Your task to perform on an android device: move an email to a new category in the gmail app Image 0: 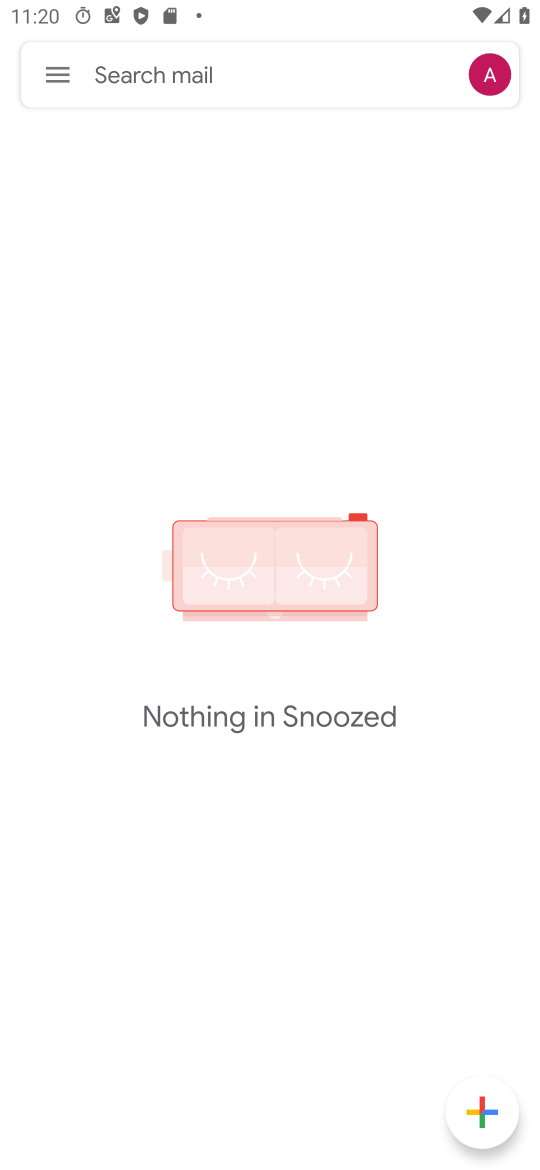
Step 0: press back button
Your task to perform on an android device: move an email to a new category in the gmail app Image 1: 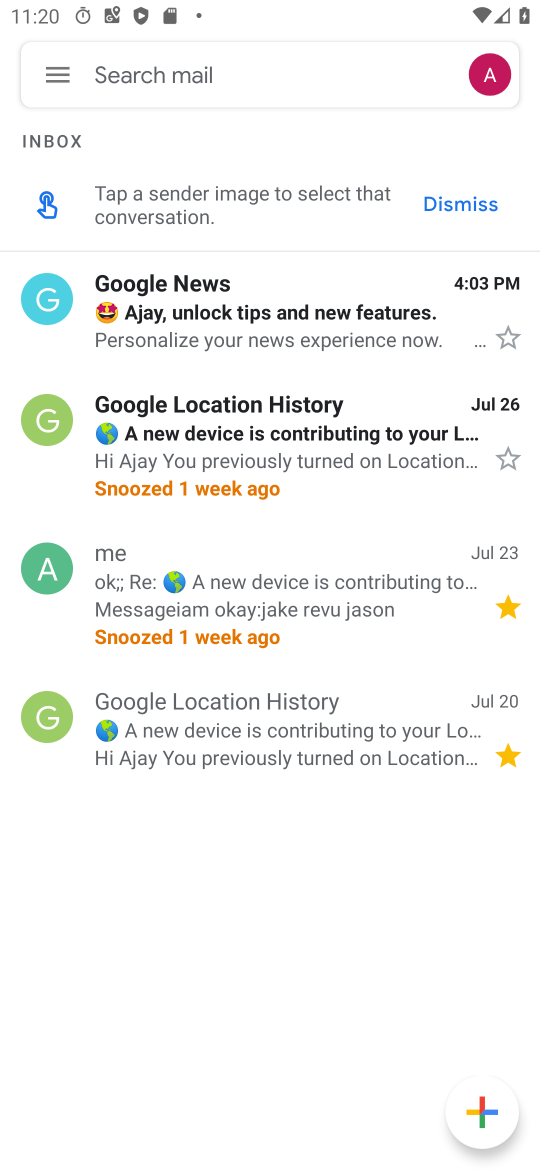
Step 1: press home button
Your task to perform on an android device: move an email to a new category in the gmail app Image 2: 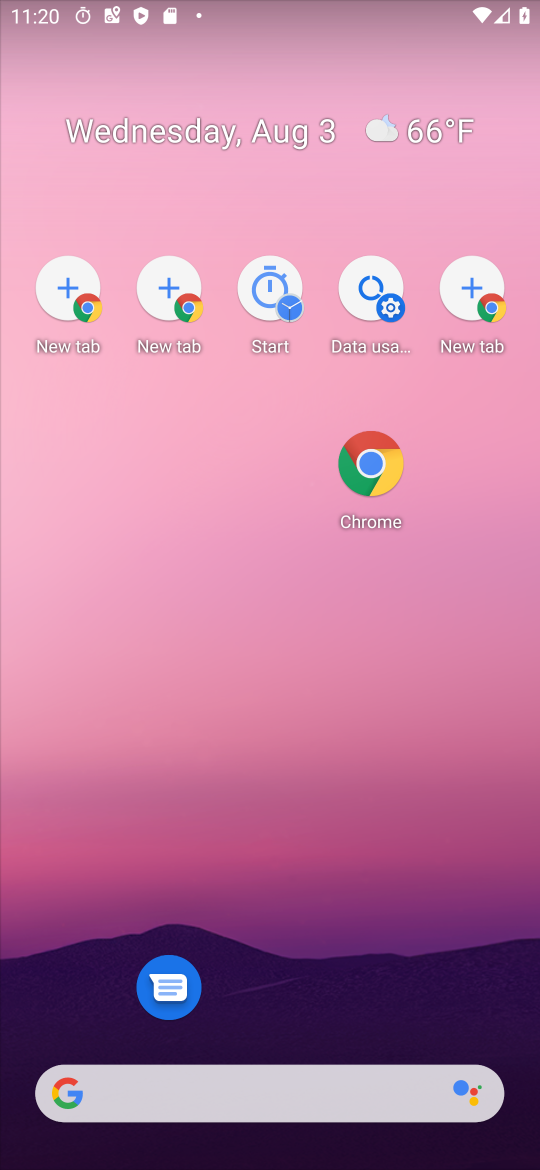
Step 2: drag from (312, 704) to (249, 21)
Your task to perform on an android device: move an email to a new category in the gmail app Image 3: 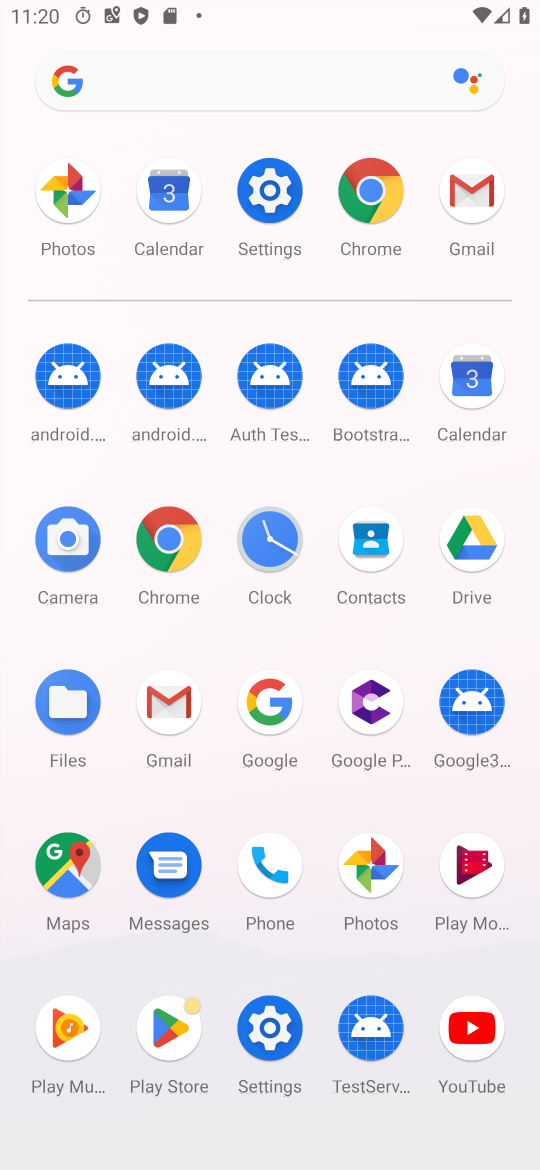
Step 3: click (182, 706)
Your task to perform on an android device: move an email to a new category in the gmail app Image 4: 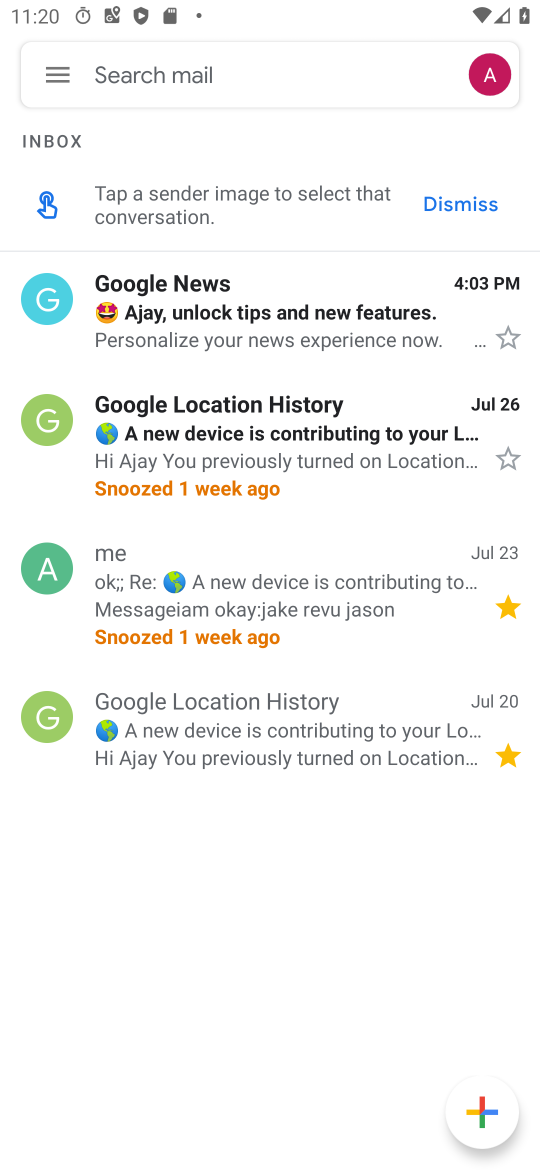
Step 4: click (509, 335)
Your task to perform on an android device: move an email to a new category in the gmail app Image 5: 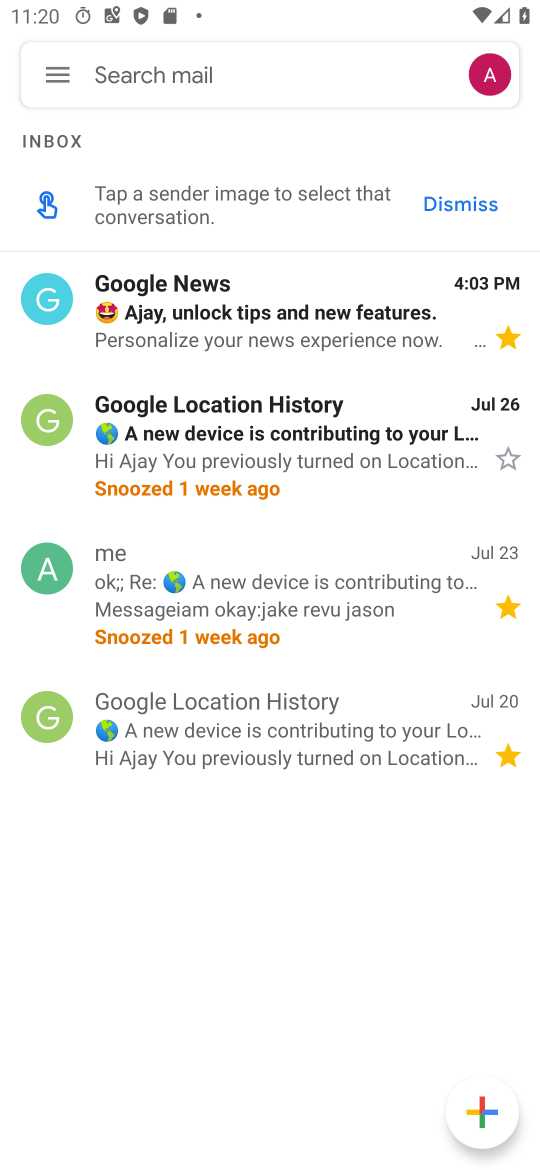
Step 5: click (350, 325)
Your task to perform on an android device: move an email to a new category in the gmail app Image 6: 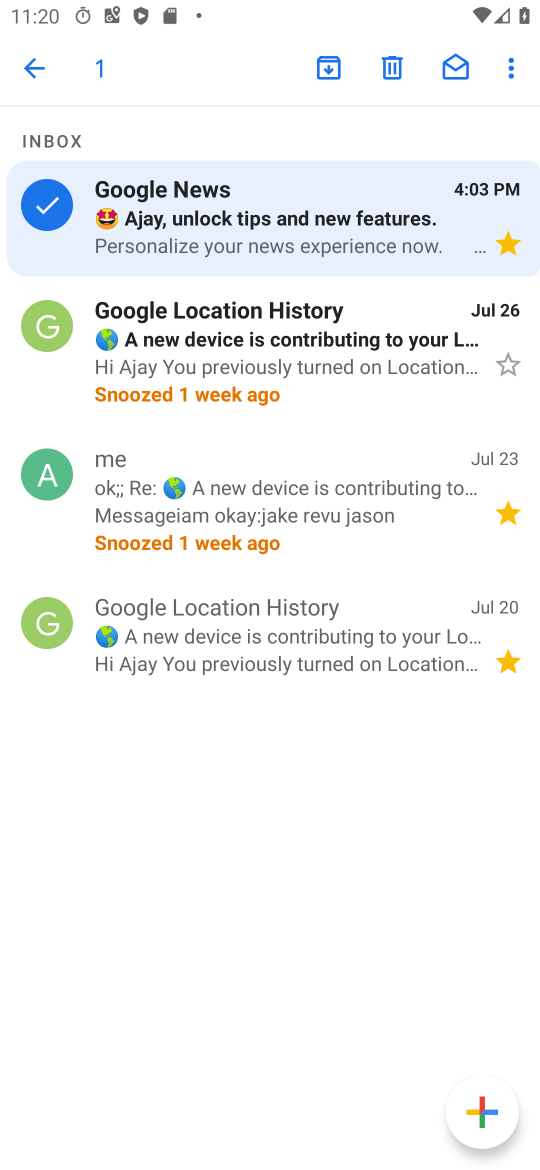
Step 6: click (497, 64)
Your task to perform on an android device: move an email to a new category in the gmail app Image 7: 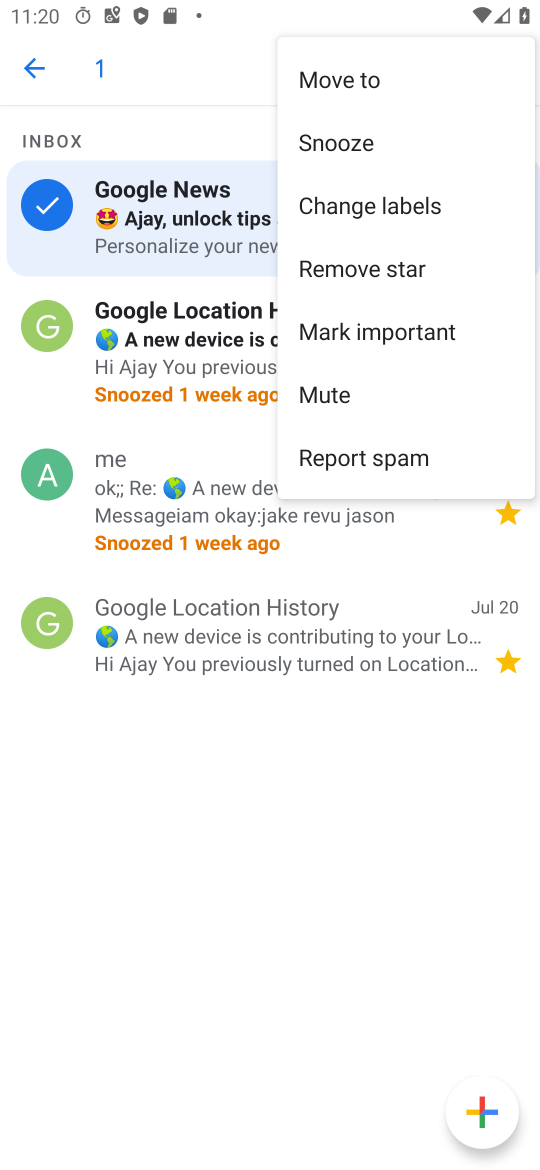
Step 7: click (333, 77)
Your task to perform on an android device: move an email to a new category in the gmail app Image 8: 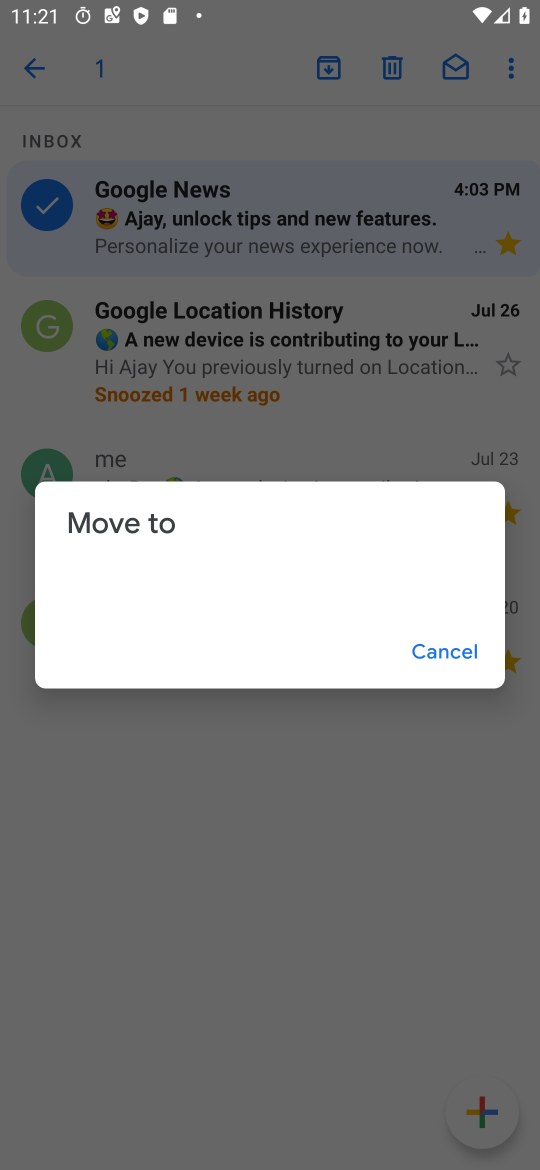
Step 8: click (158, 523)
Your task to perform on an android device: move an email to a new category in the gmail app Image 9: 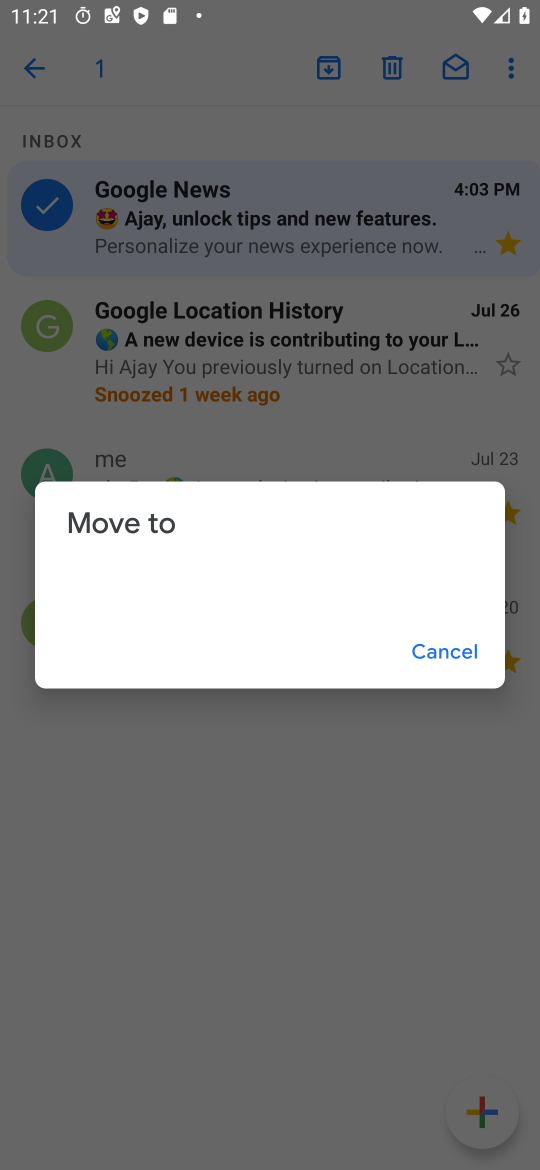
Step 9: click (163, 534)
Your task to perform on an android device: move an email to a new category in the gmail app Image 10: 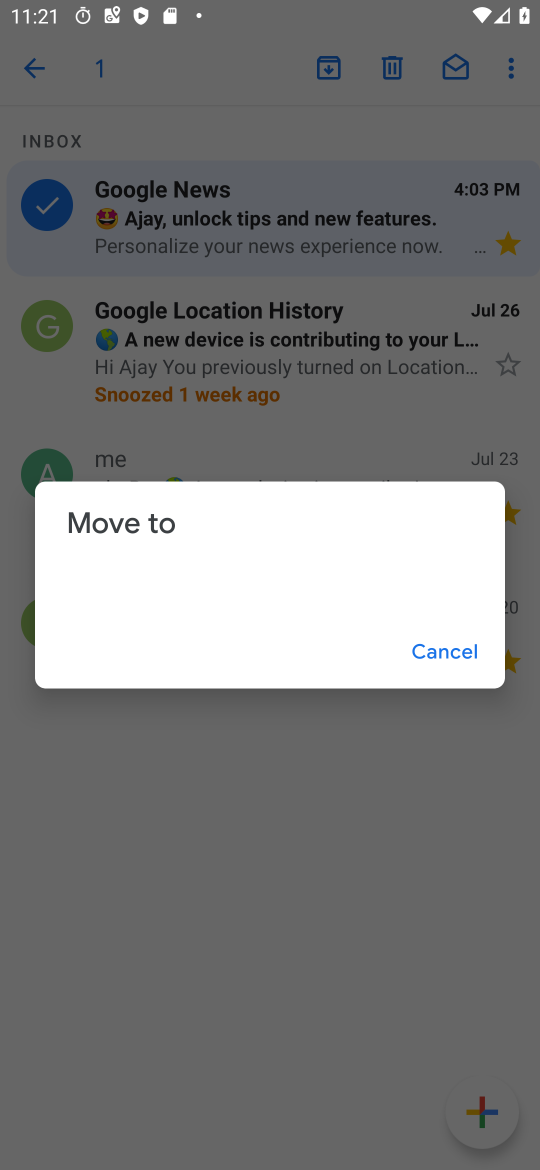
Step 10: click (168, 533)
Your task to perform on an android device: move an email to a new category in the gmail app Image 11: 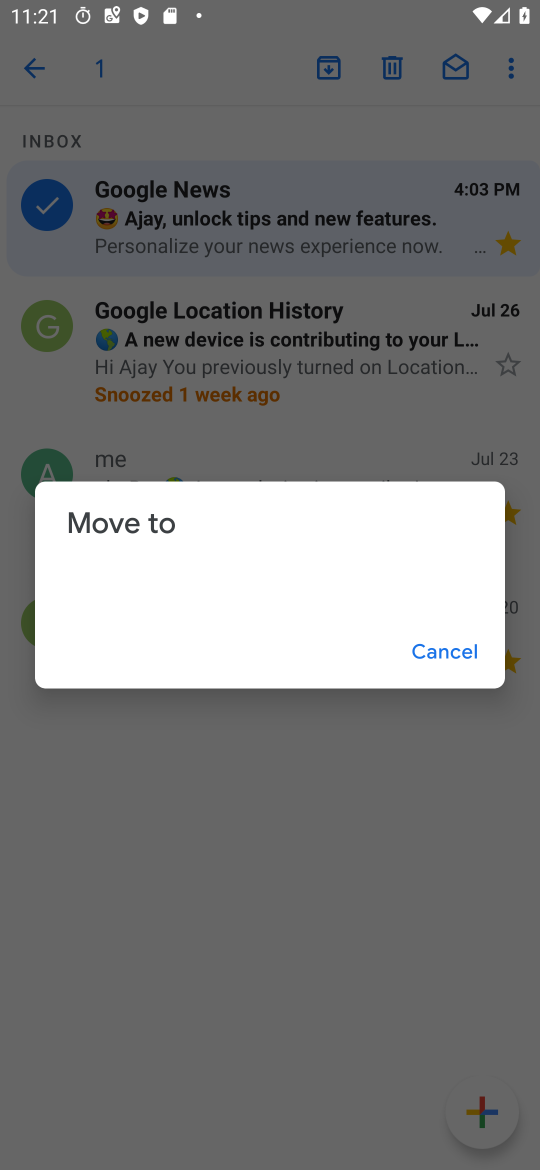
Step 11: click (175, 524)
Your task to perform on an android device: move an email to a new category in the gmail app Image 12: 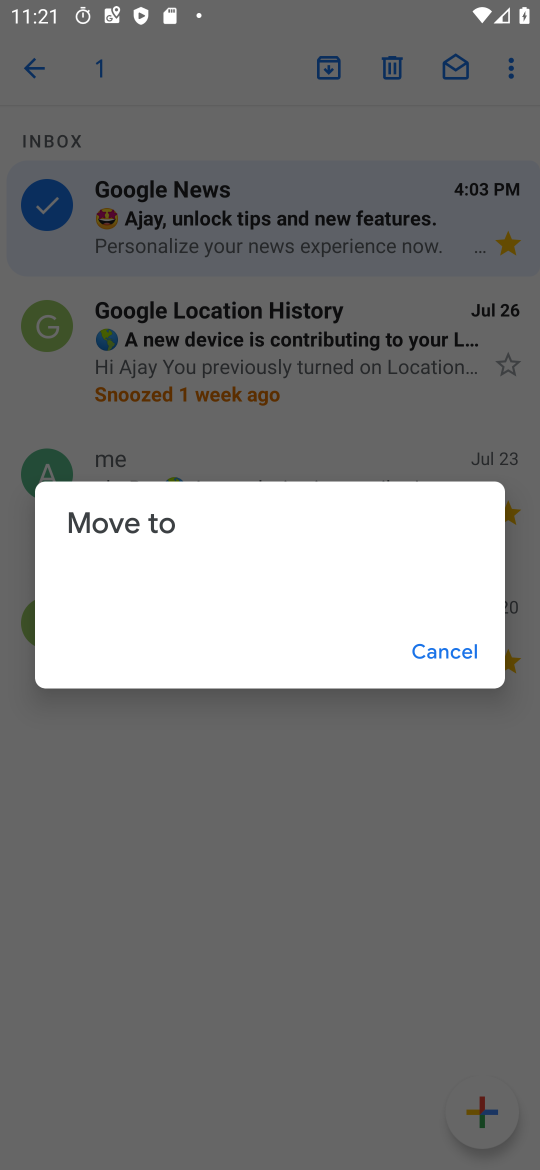
Step 12: click (176, 526)
Your task to perform on an android device: move an email to a new category in the gmail app Image 13: 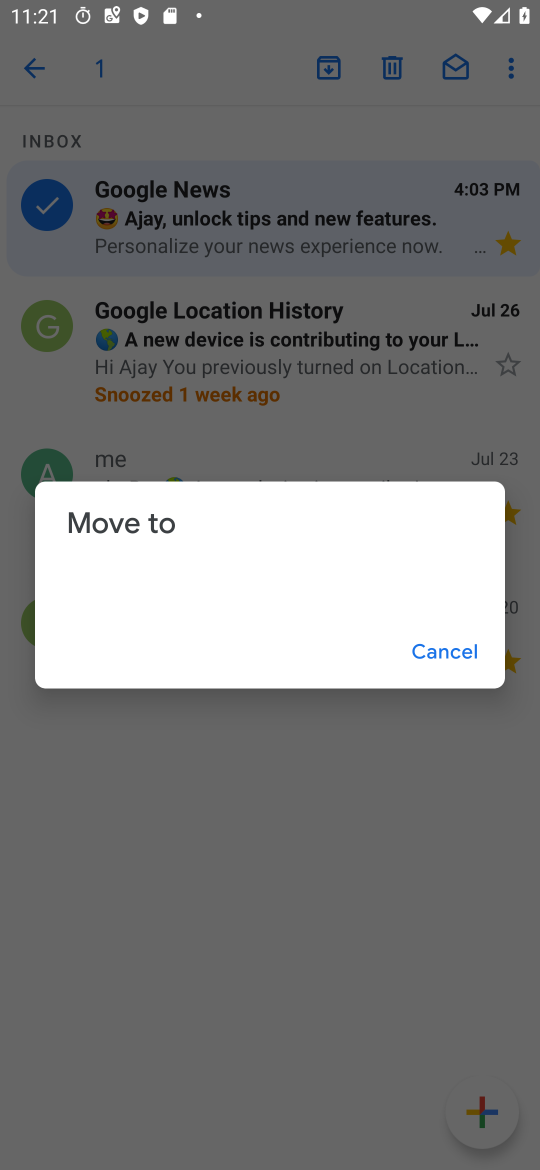
Step 13: click (176, 527)
Your task to perform on an android device: move an email to a new category in the gmail app Image 14: 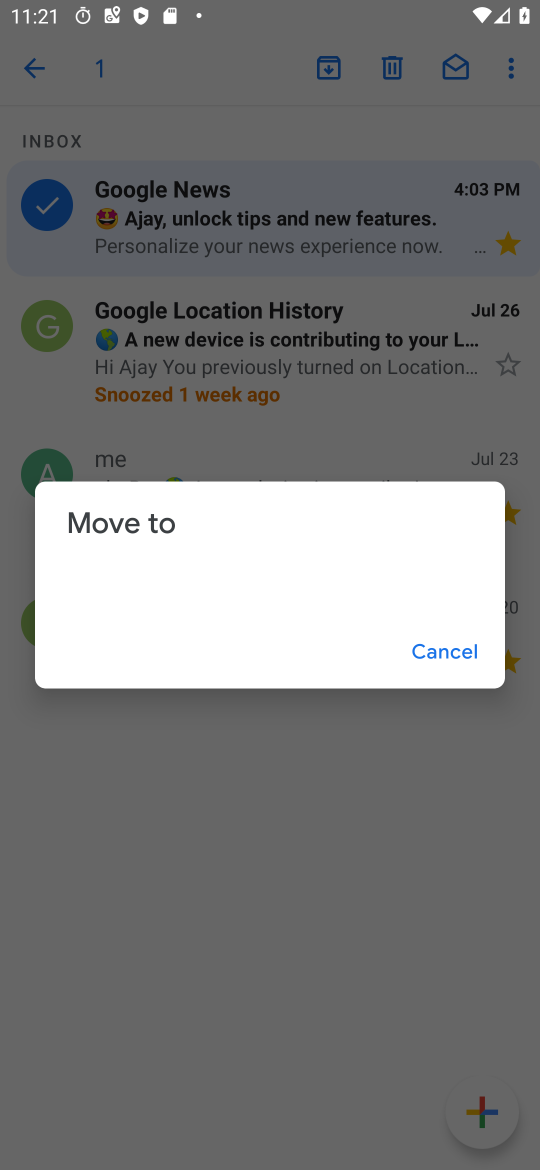
Step 14: click (176, 529)
Your task to perform on an android device: move an email to a new category in the gmail app Image 15: 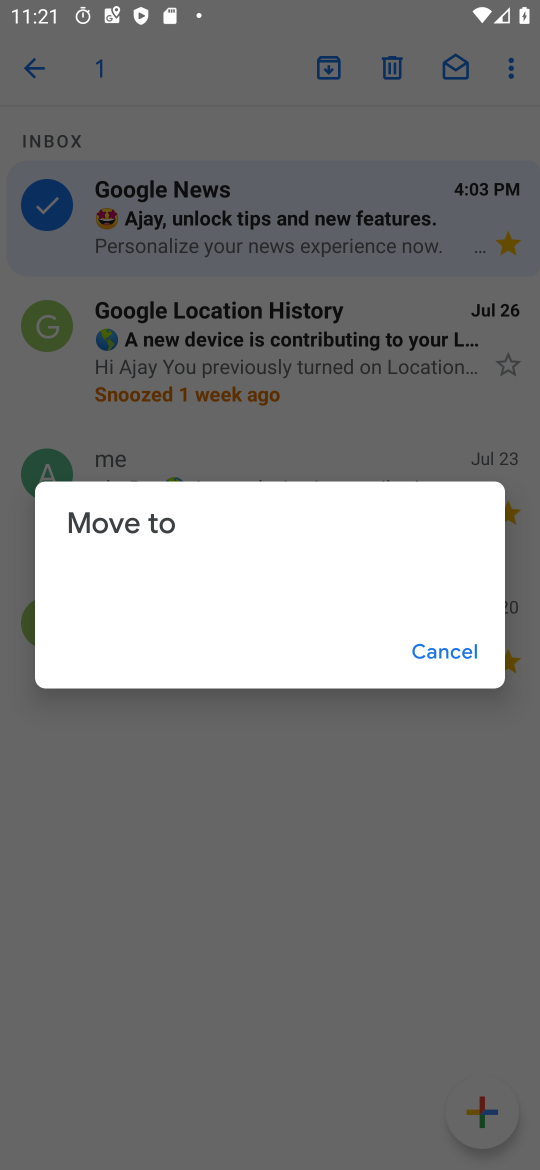
Step 15: click (178, 529)
Your task to perform on an android device: move an email to a new category in the gmail app Image 16: 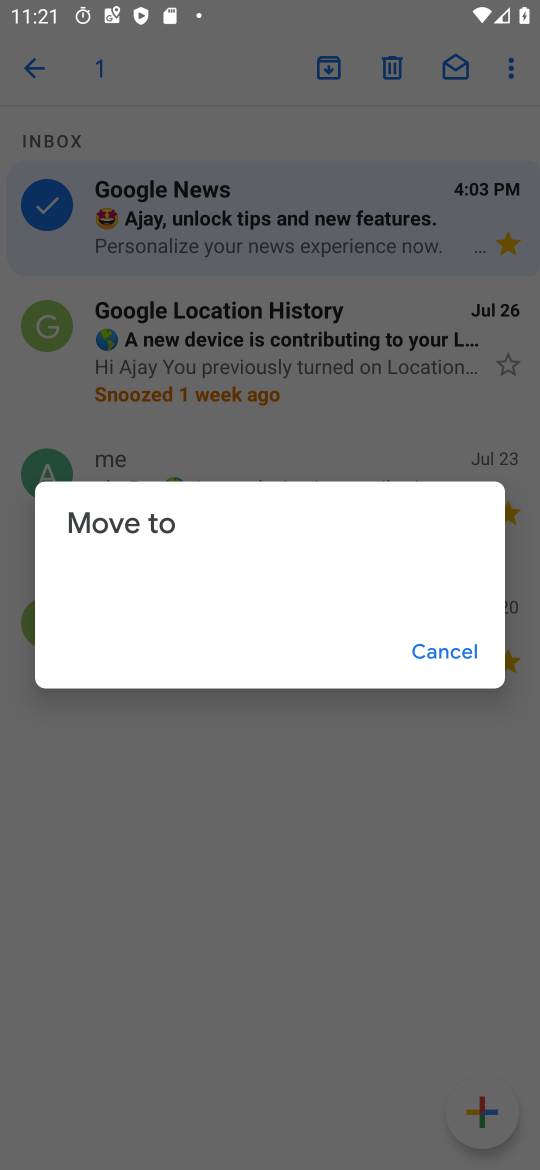
Step 16: click (461, 661)
Your task to perform on an android device: move an email to a new category in the gmail app Image 17: 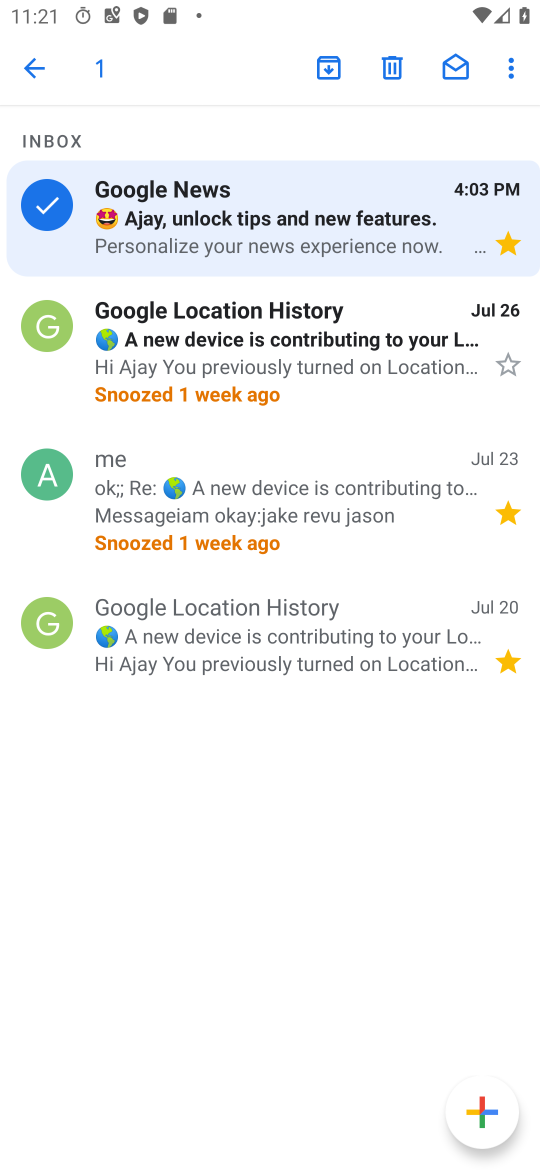
Step 17: click (507, 234)
Your task to perform on an android device: move an email to a new category in the gmail app Image 18: 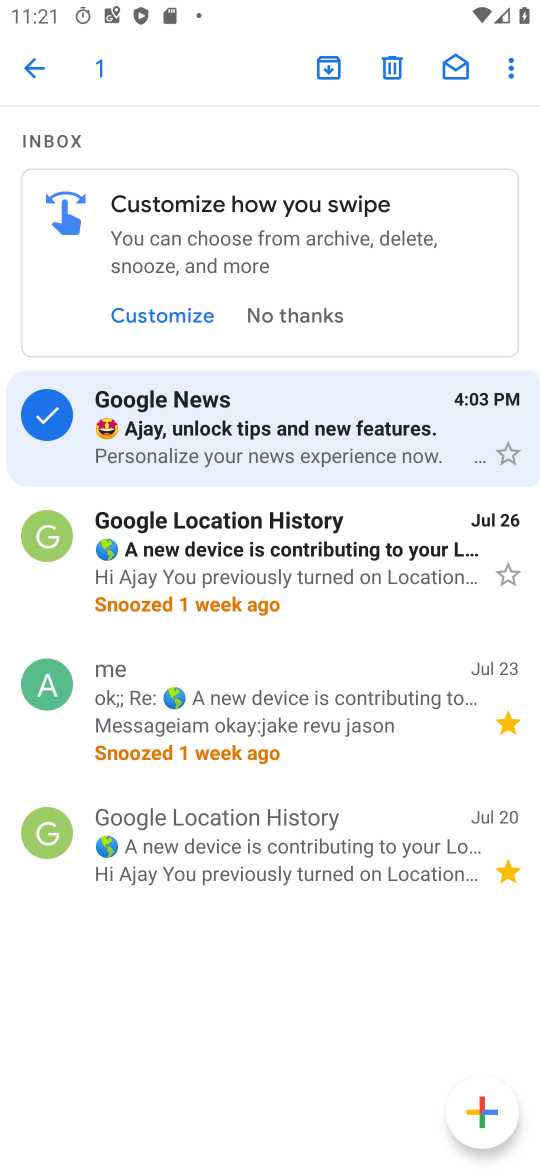
Step 18: click (511, 71)
Your task to perform on an android device: move an email to a new category in the gmail app Image 19: 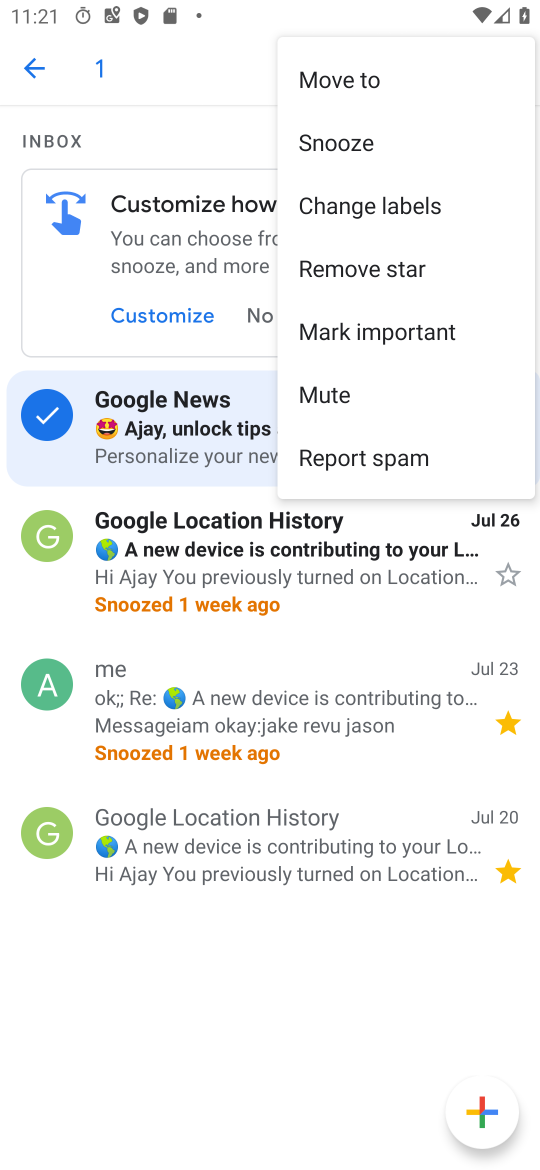
Step 19: click (353, 61)
Your task to perform on an android device: move an email to a new category in the gmail app Image 20: 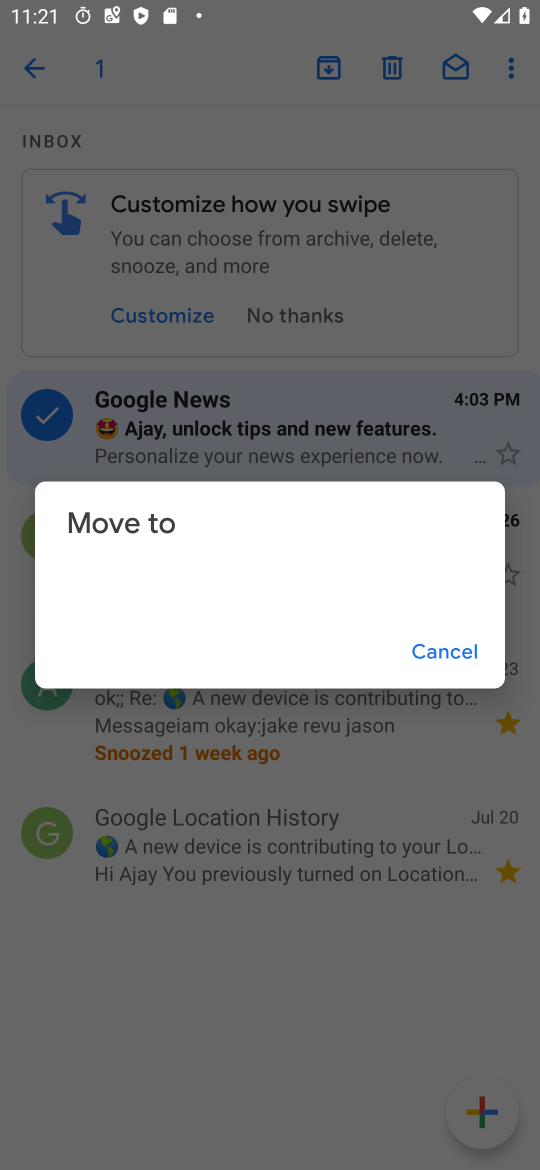
Step 20: click (221, 584)
Your task to perform on an android device: move an email to a new category in the gmail app Image 21: 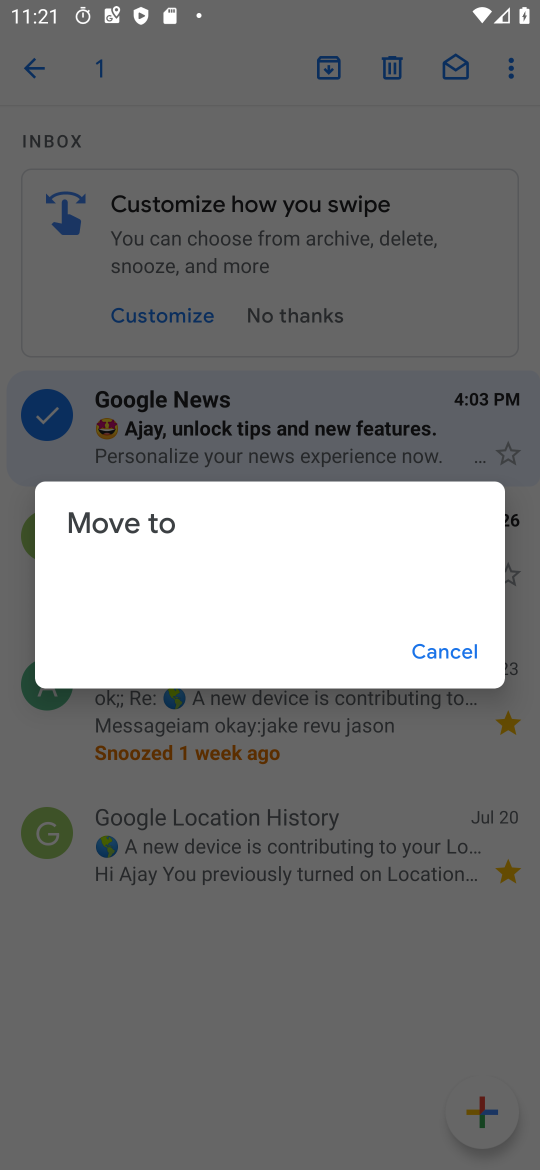
Step 21: click (228, 576)
Your task to perform on an android device: move an email to a new category in the gmail app Image 22: 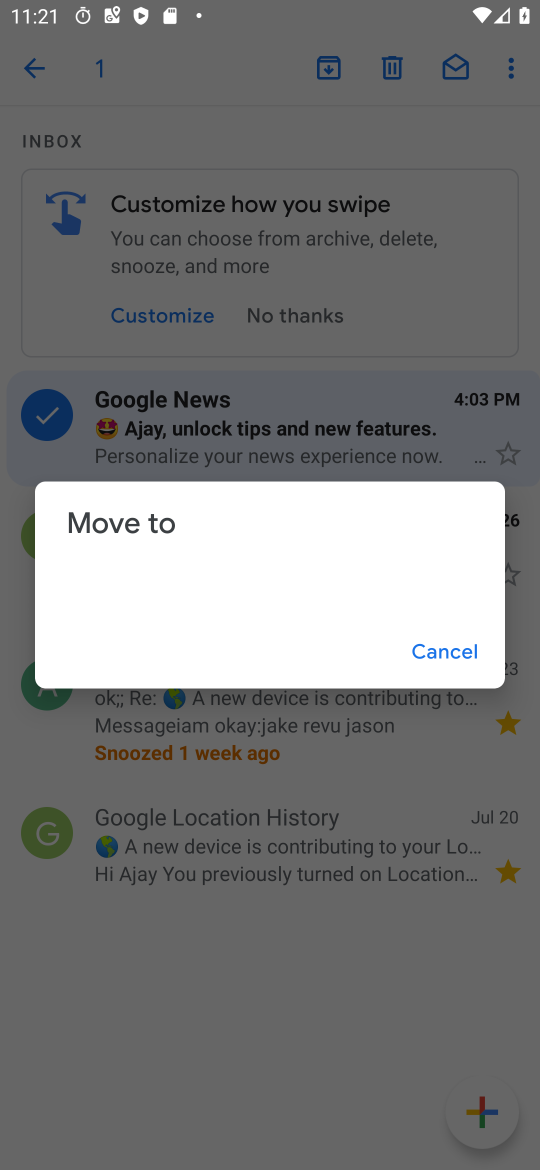
Step 22: click (431, 337)
Your task to perform on an android device: move an email to a new category in the gmail app Image 23: 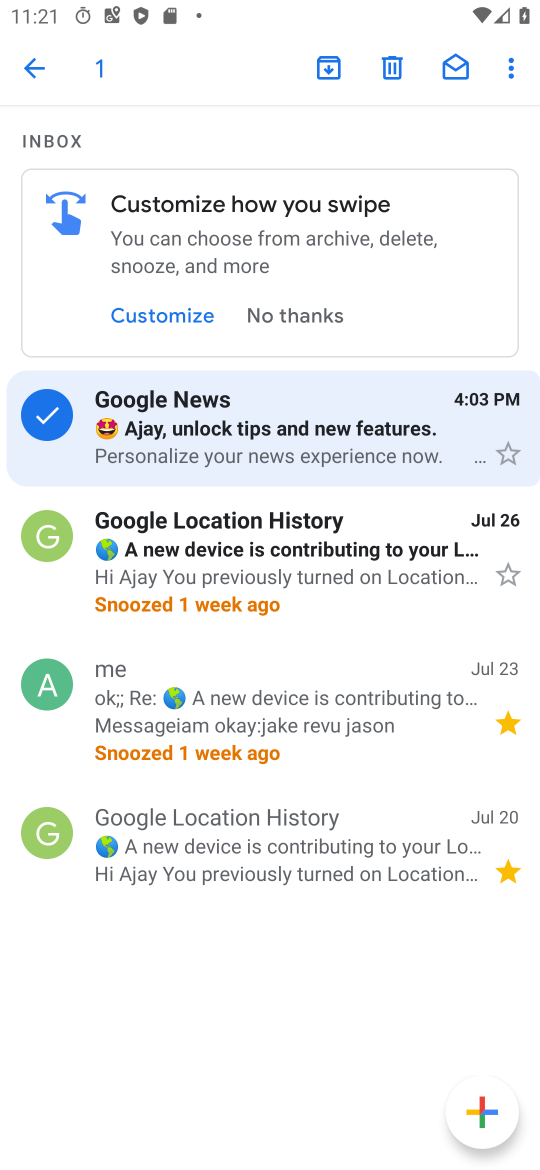
Step 23: click (275, 442)
Your task to perform on an android device: move an email to a new category in the gmail app Image 24: 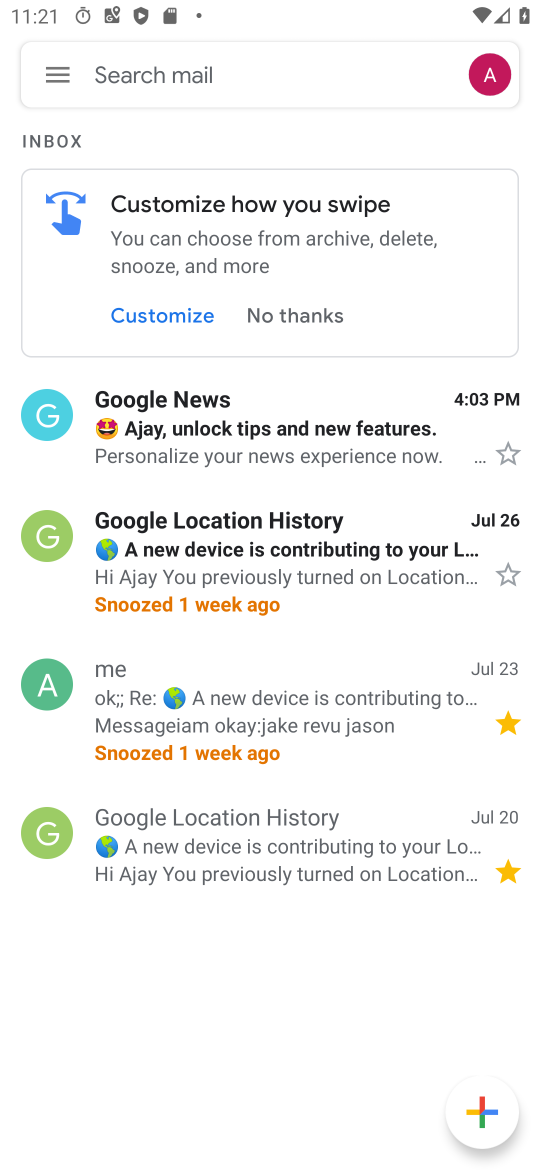
Step 24: click (507, 448)
Your task to perform on an android device: move an email to a new category in the gmail app Image 25: 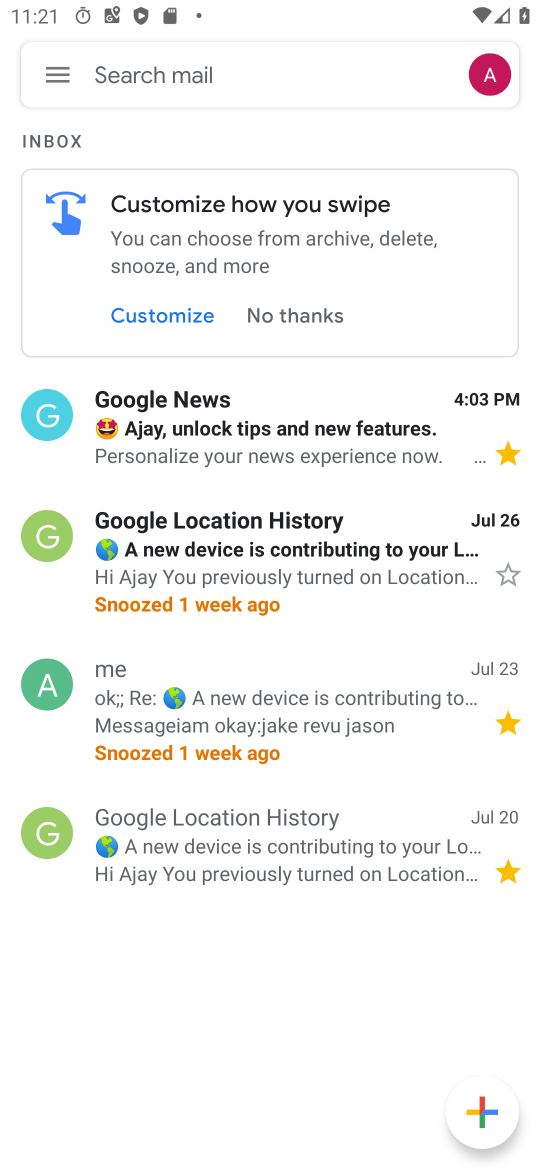
Step 25: task complete